Your task to perform on an android device: Open the phone app and click the voicemail tab. Image 0: 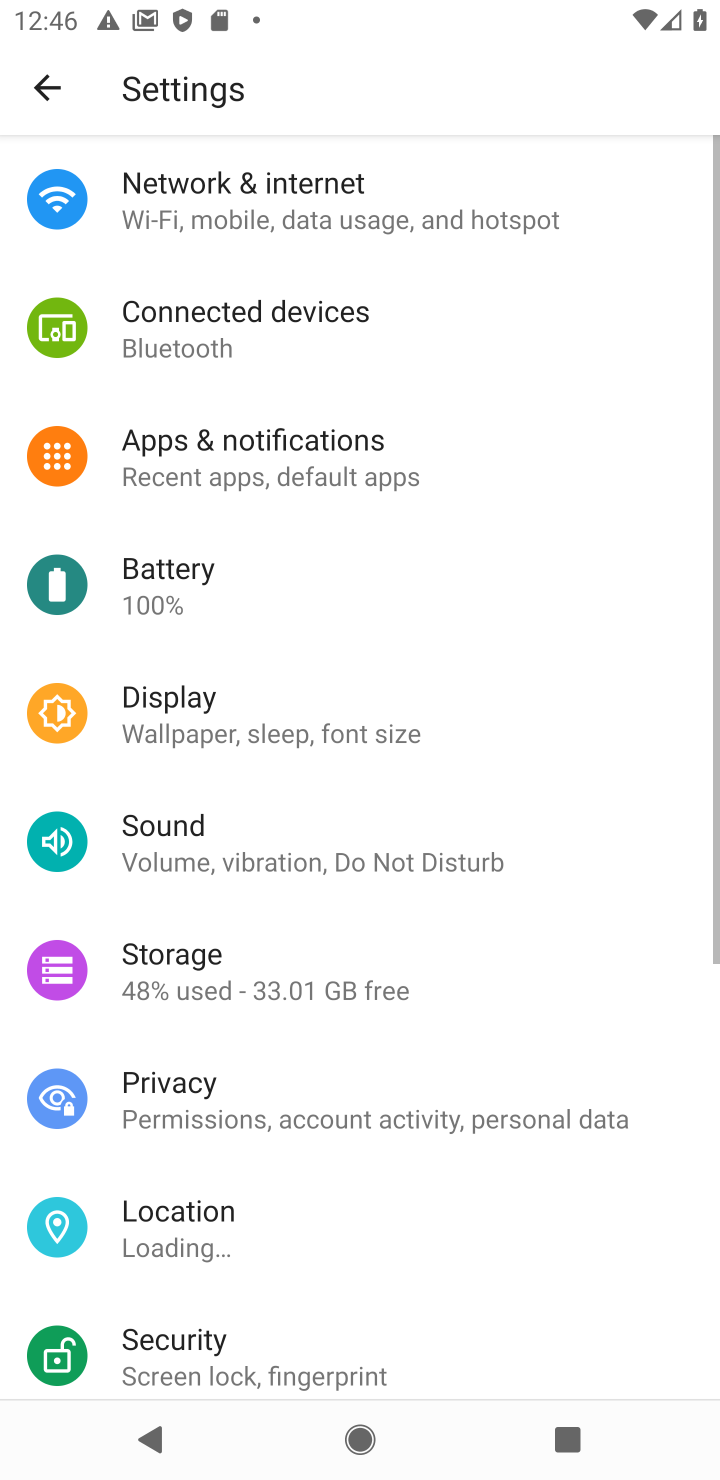
Step 0: press home button
Your task to perform on an android device: Open the phone app and click the voicemail tab. Image 1: 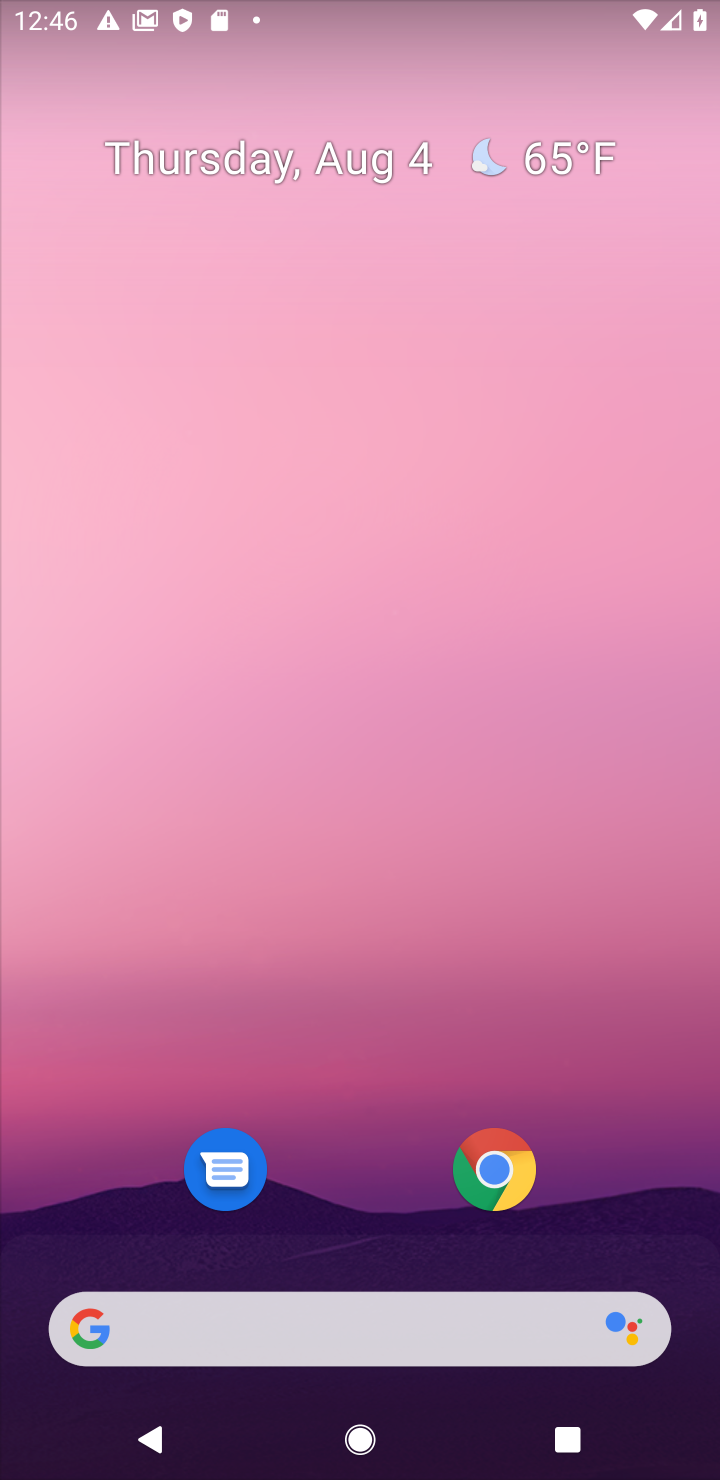
Step 1: drag from (292, 410) to (362, 38)
Your task to perform on an android device: Open the phone app and click the voicemail tab. Image 2: 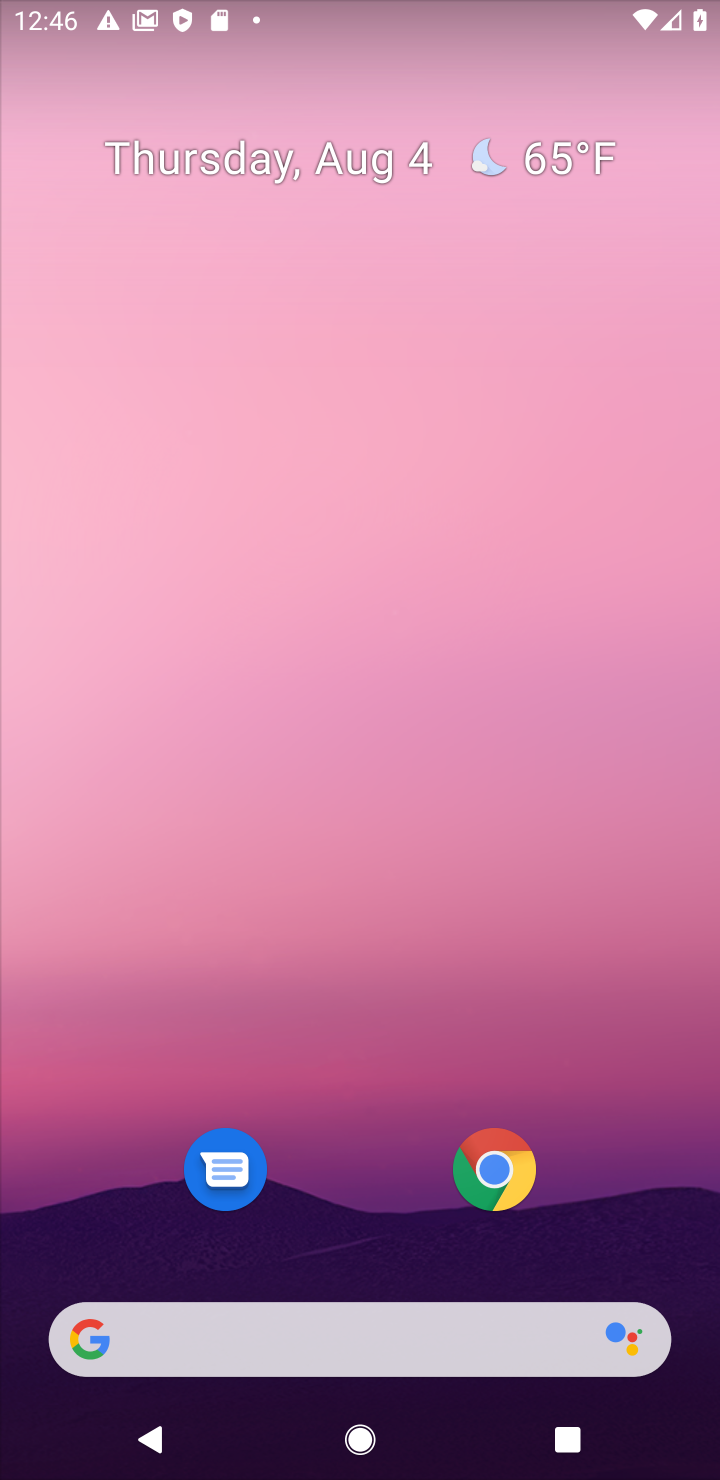
Step 2: drag from (338, 1198) to (383, 186)
Your task to perform on an android device: Open the phone app and click the voicemail tab. Image 3: 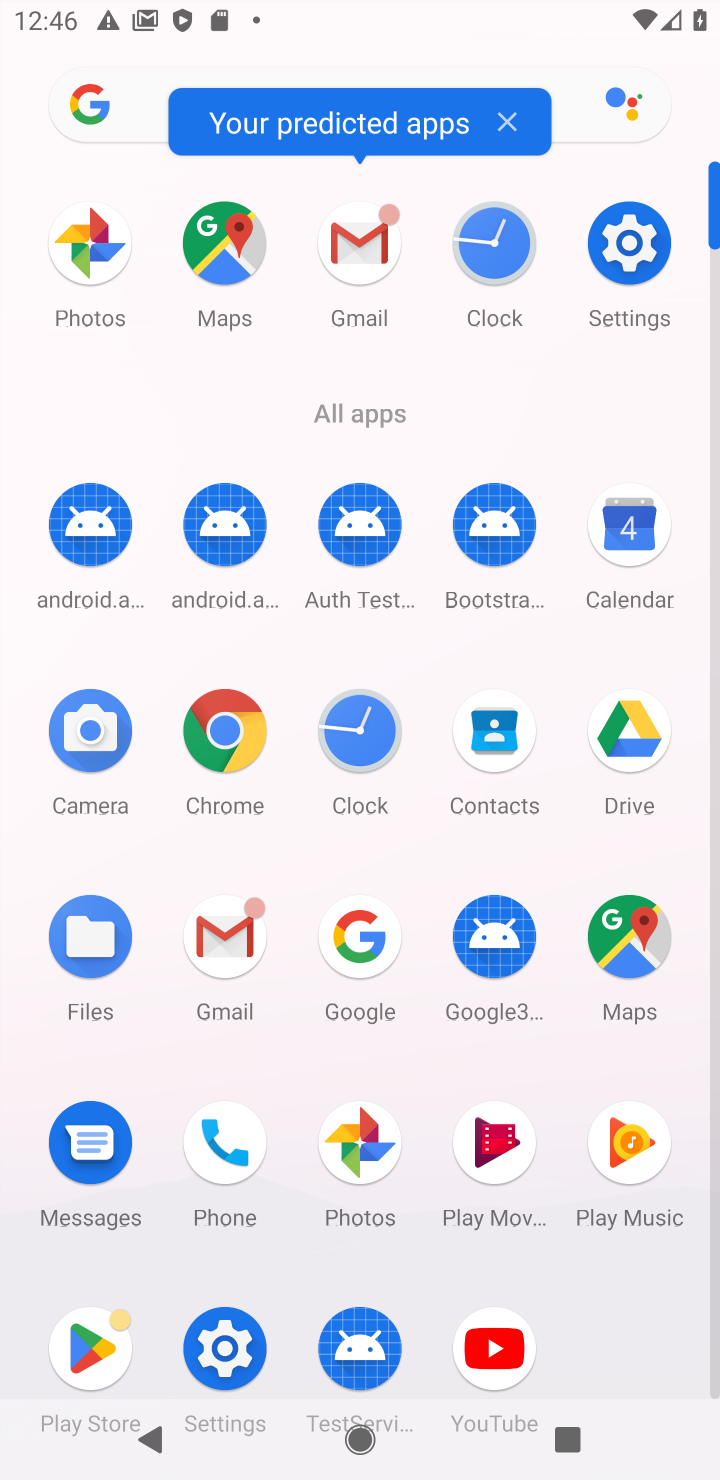
Step 3: click (232, 1185)
Your task to perform on an android device: Open the phone app and click the voicemail tab. Image 4: 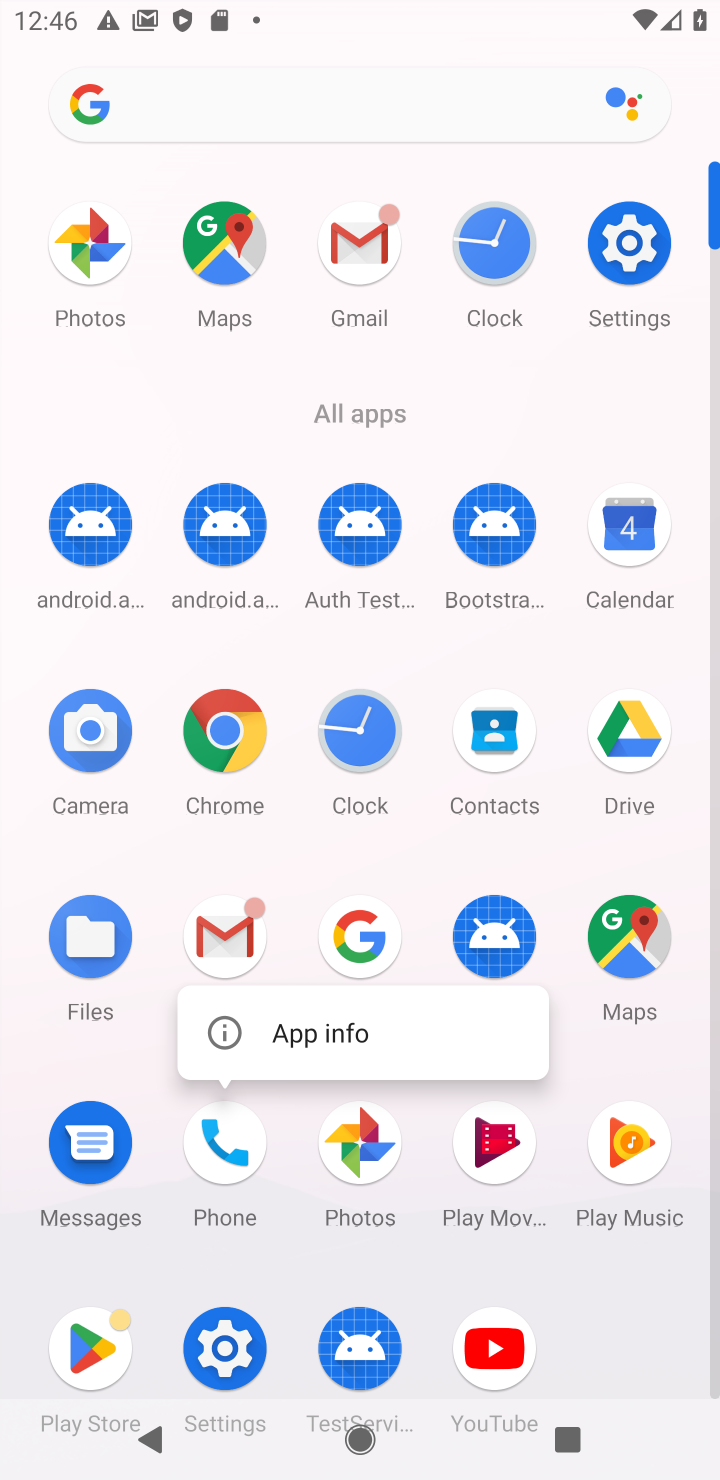
Step 4: click (232, 1183)
Your task to perform on an android device: Open the phone app and click the voicemail tab. Image 5: 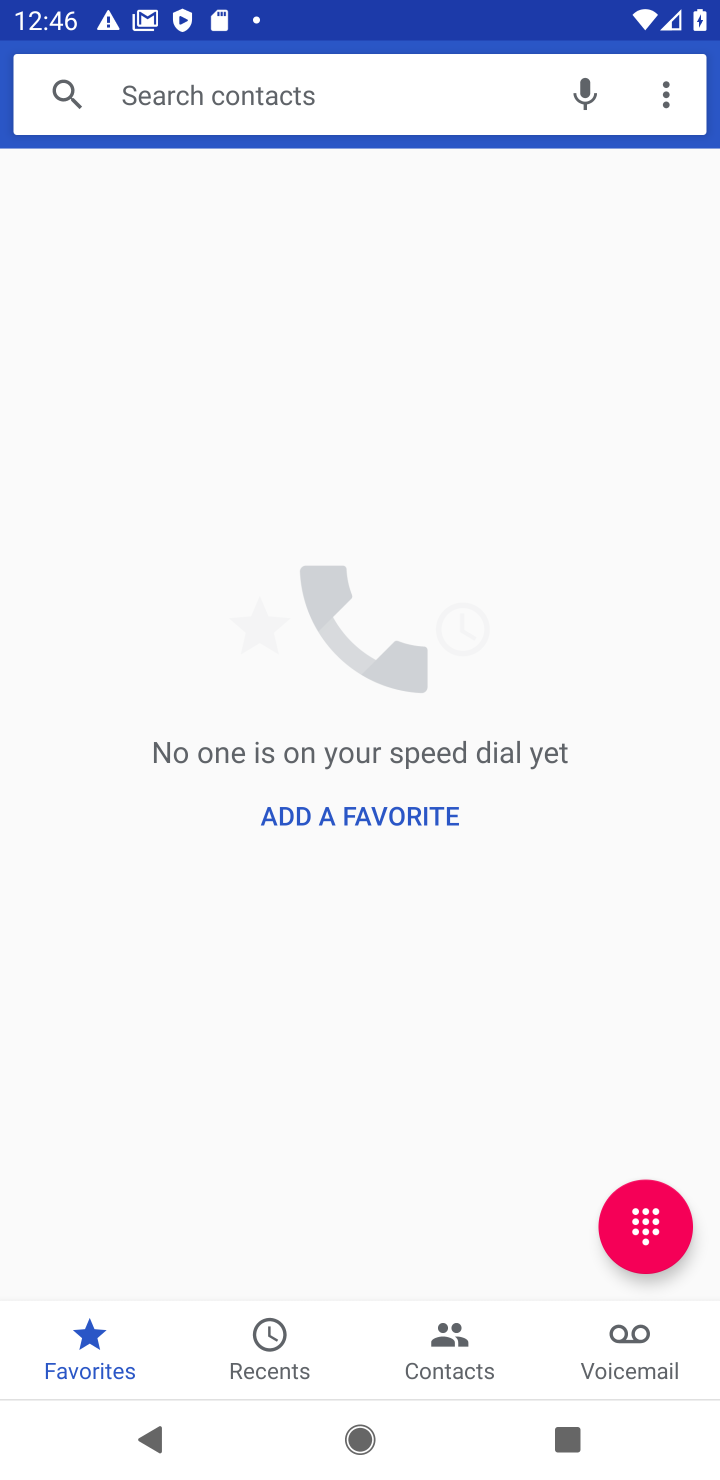
Step 5: click (640, 1353)
Your task to perform on an android device: Open the phone app and click the voicemail tab. Image 6: 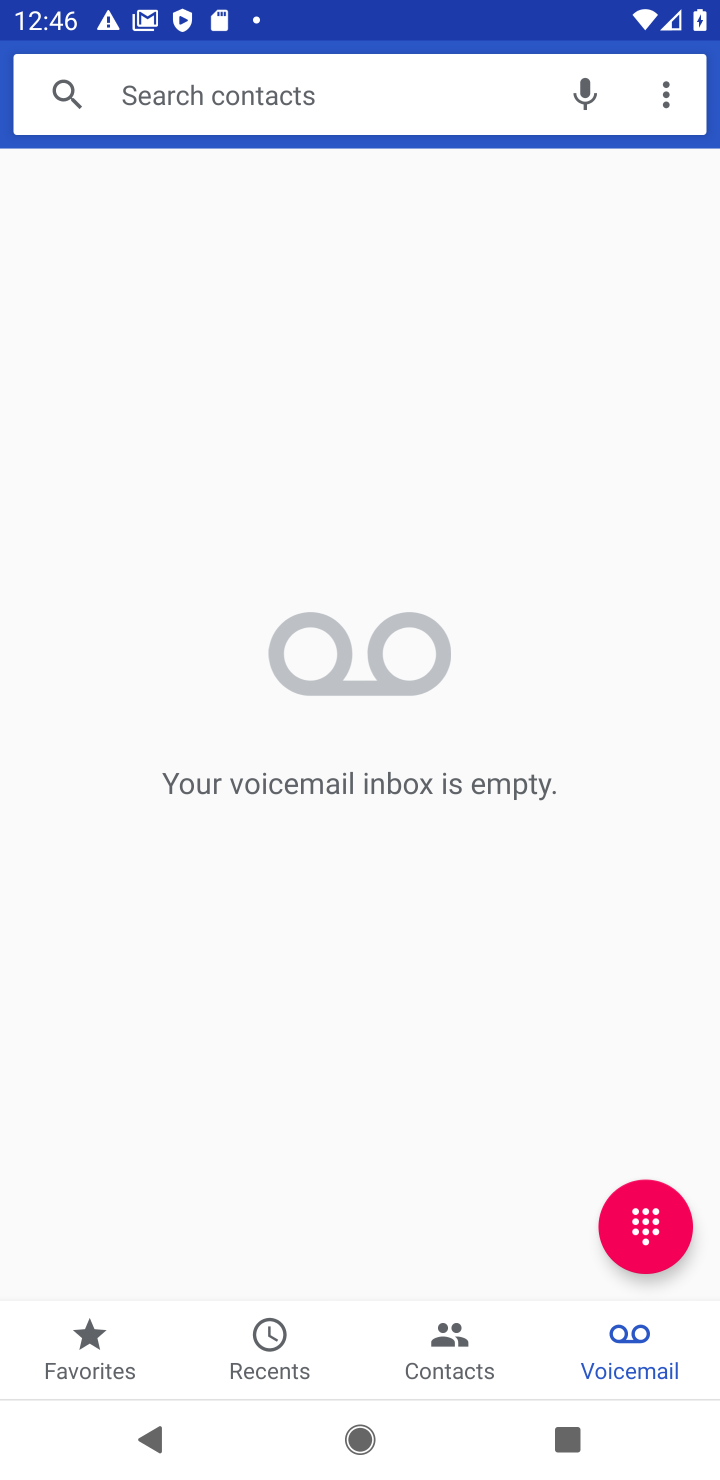
Step 6: task complete